Your task to perform on an android device: turn on improve location accuracy Image 0: 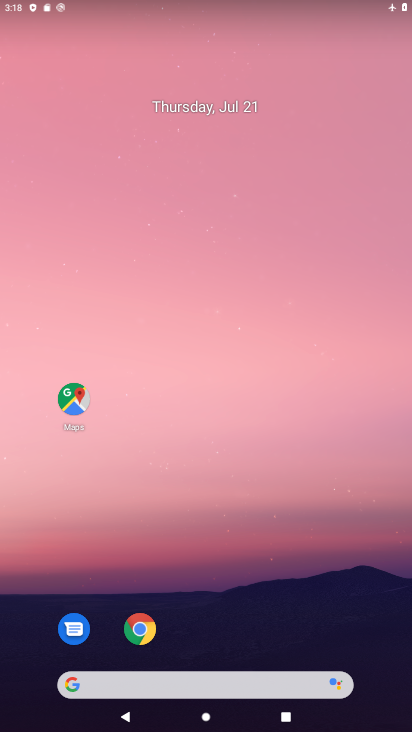
Step 0: drag from (289, 632) to (276, 139)
Your task to perform on an android device: turn on improve location accuracy Image 1: 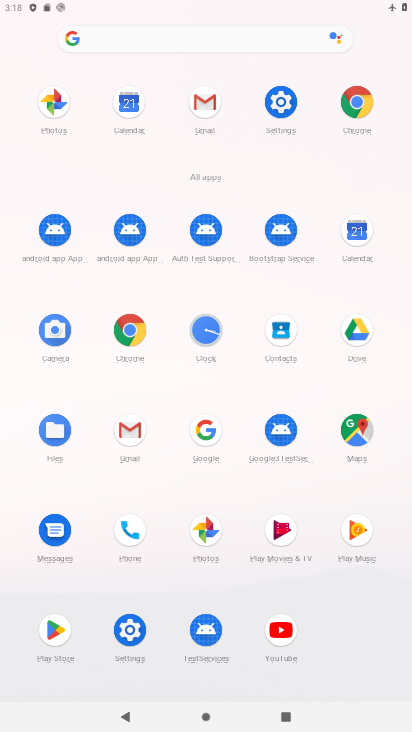
Step 1: click (122, 629)
Your task to perform on an android device: turn on improve location accuracy Image 2: 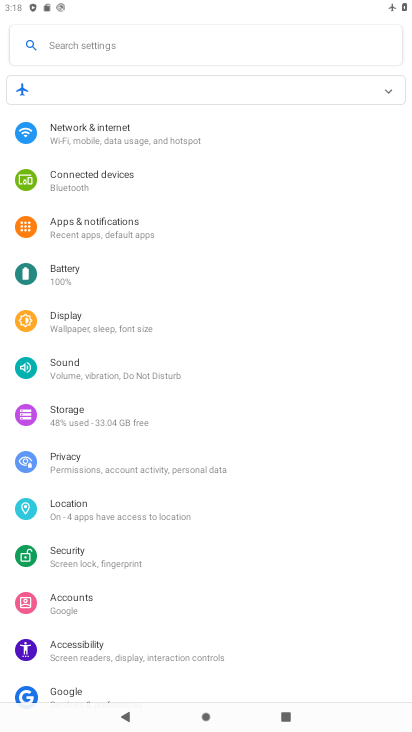
Step 2: click (119, 512)
Your task to perform on an android device: turn on improve location accuracy Image 3: 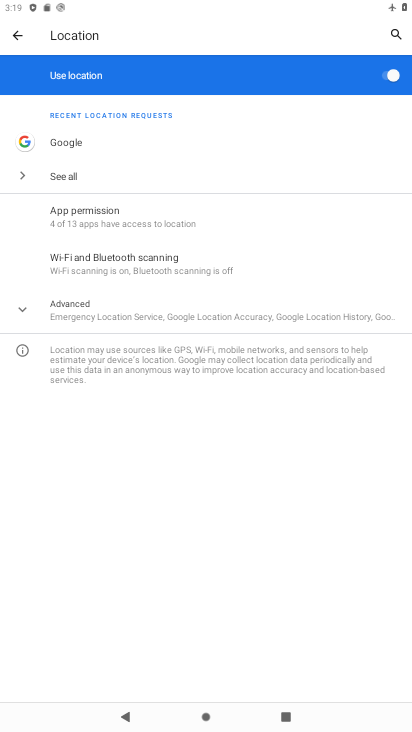
Step 3: click (114, 307)
Your task to perform on an android device: turn on improve location accuracy Image 4: 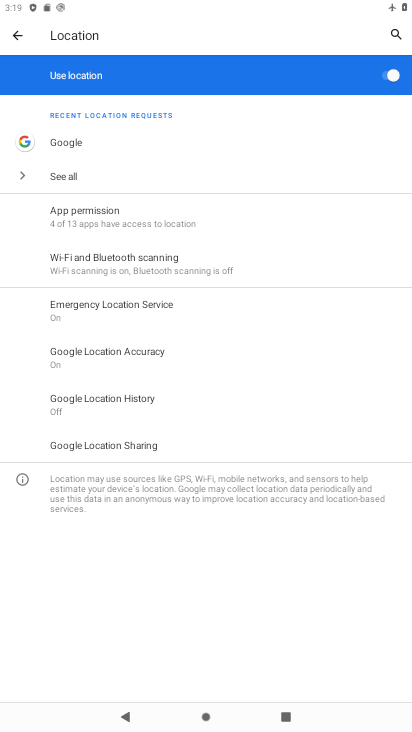
Step 4: click (139, 355)
Your task to perform on an android device: turn on improve location accuracy Image 5: 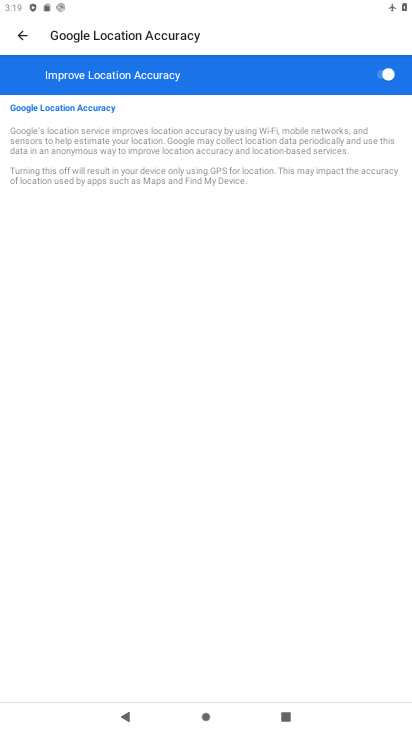
Step 5: task complete